Your task to perform on an android device: Go to privacy settings Image 0: 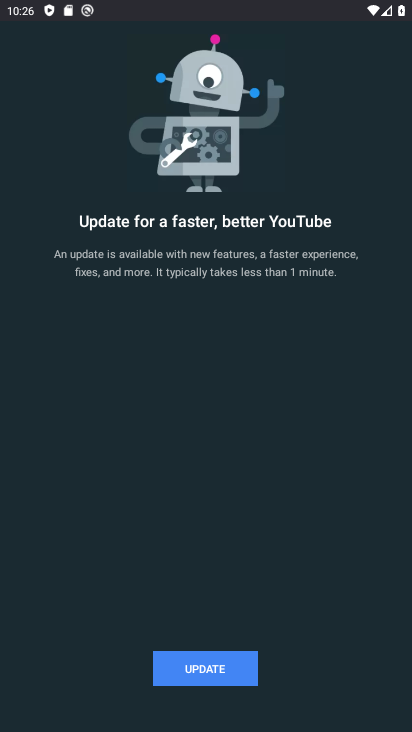
Step 0: press home button
Your task to perform on an android device: Go to privacy settings Image 1: 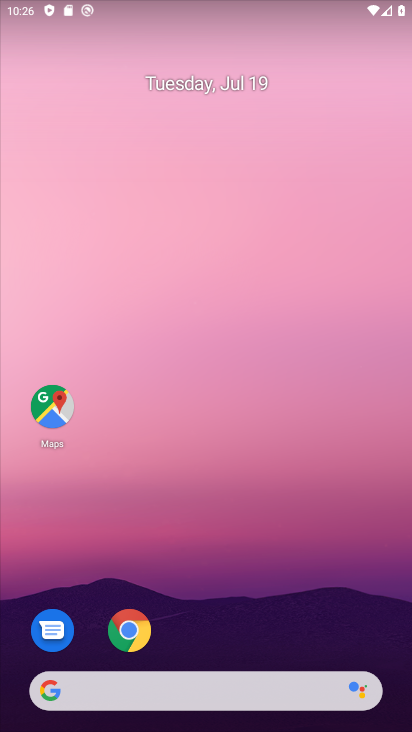
Step 1: drag from (12, 719) to (282, 61)
Your task to perform on an android device: Go to privacy settings Image 2: 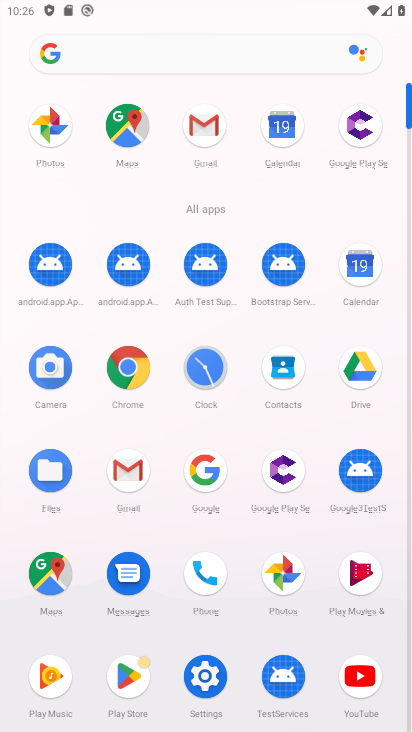
Step 2: click (197, 662)
Your task to perform on an android device: Go to privacy settings Image 3: 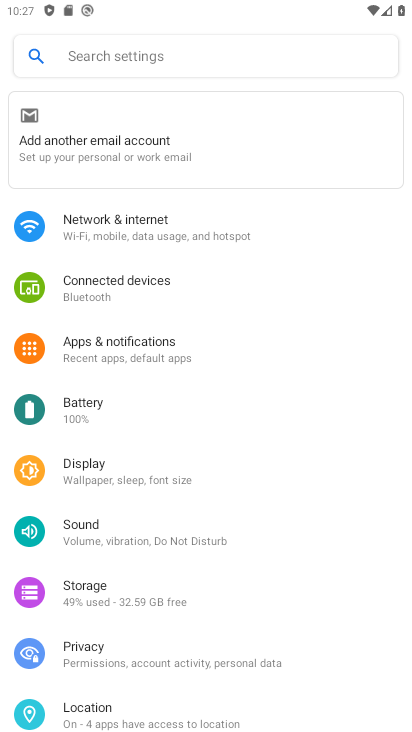
Step 3: click (36, 651)
Your task to perform on an android device: Go to privacy settings Image 4: 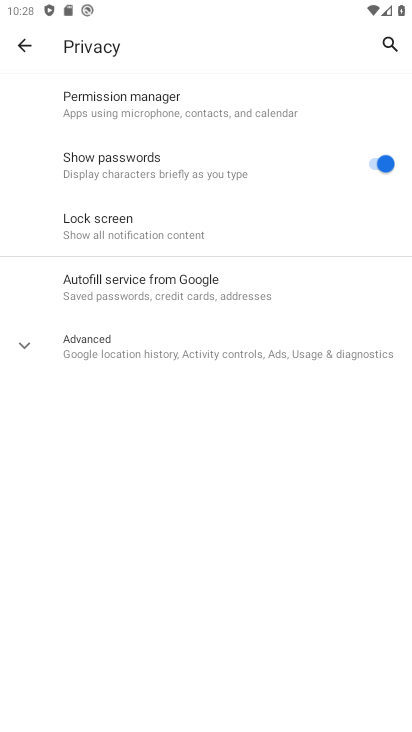
Step 4: task complete